Your task to perform on an android device: Turn off the flashlight Image 0: 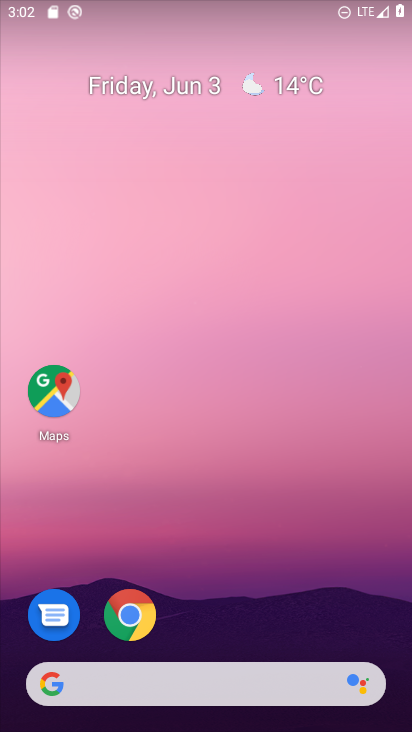
Step 0: drag from (97, 591) to (160, 194)
Your task to perform on an android device: Turn off the flashlight Image 1: 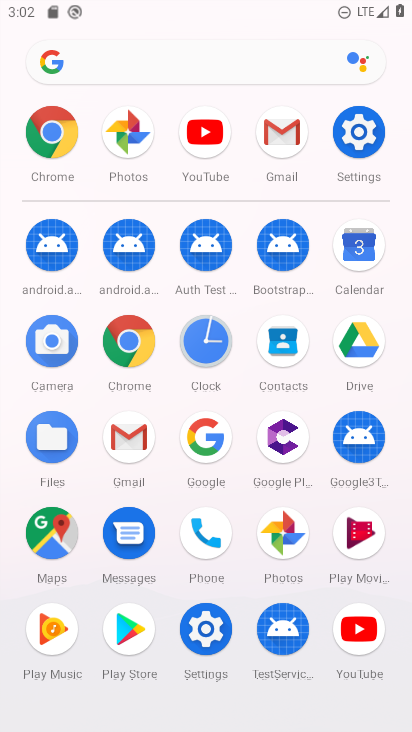
Step 1: click (361, 124)
Your task to perform on an android device: Turn off the flashlight Image 2: 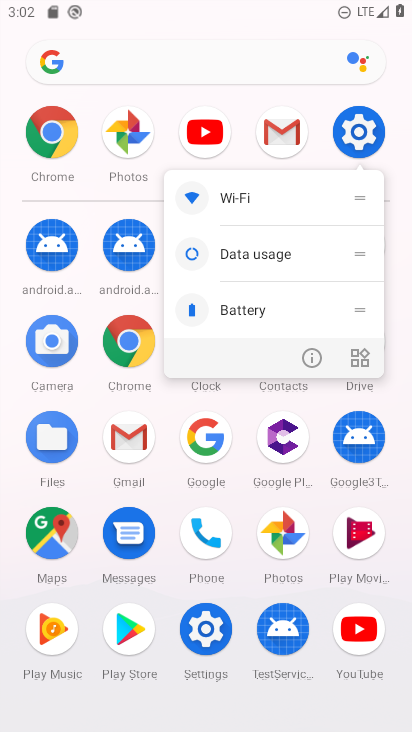
Step 2: click (307, 353)
Your task to perform on an android device: Turn off the flashlight Image 3: 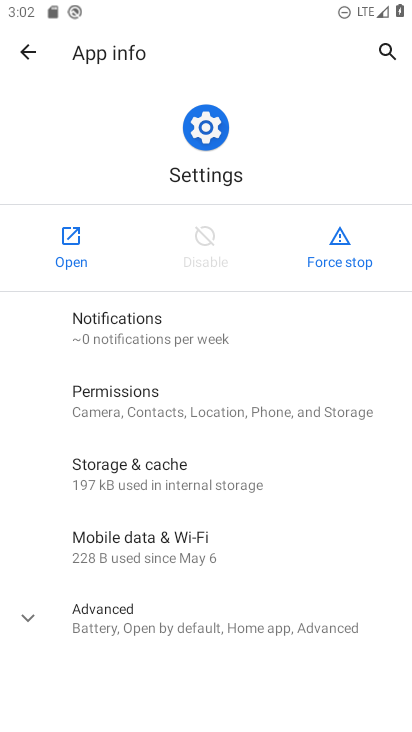
Step 3: click (56, 245)
Your task to perform on an android device: Turn off the flashlight Image 4: 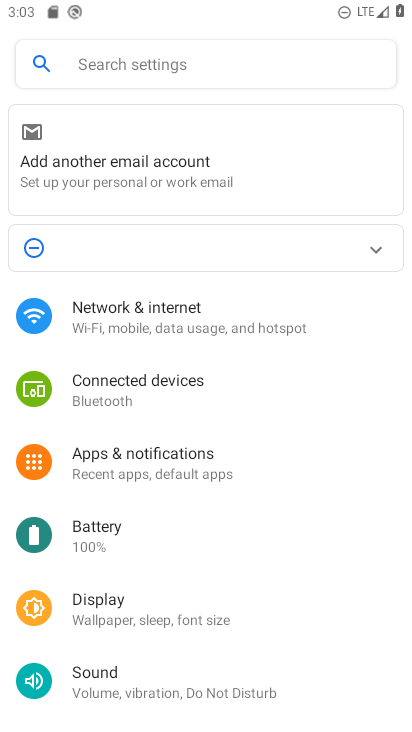
Step 4: click (222, 56)
Your task to perform on an android device: Turn off the flashlight Image 5: 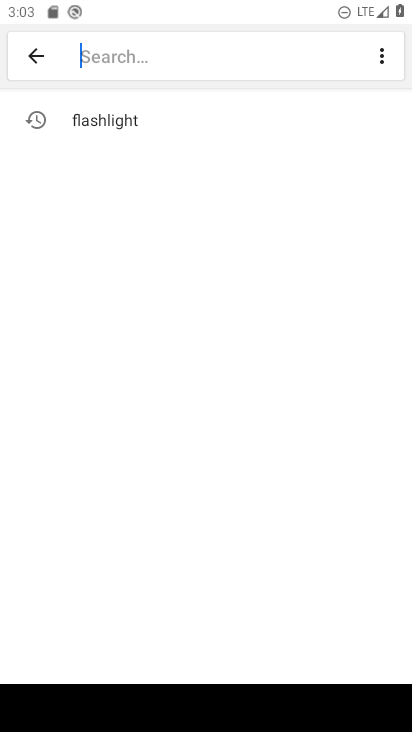
Step 5: click (98, 122)
Your task to perform on an android device: Turn off the flashlight Image 6: 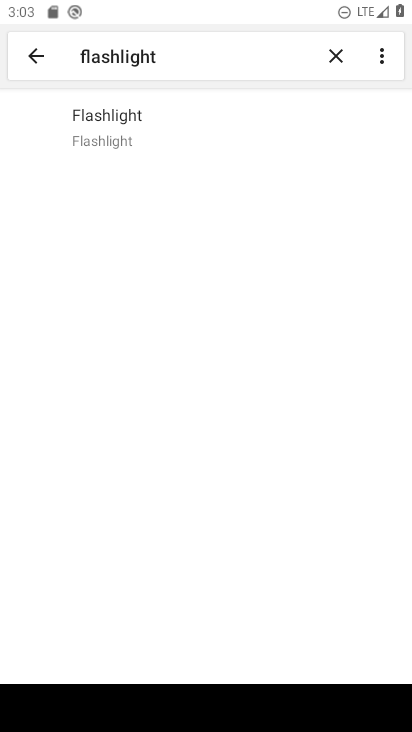
Step 6: drag from (229, 479) to (291, 95)
Your task to perform on an android device: Turn off the flashlight Image 7: 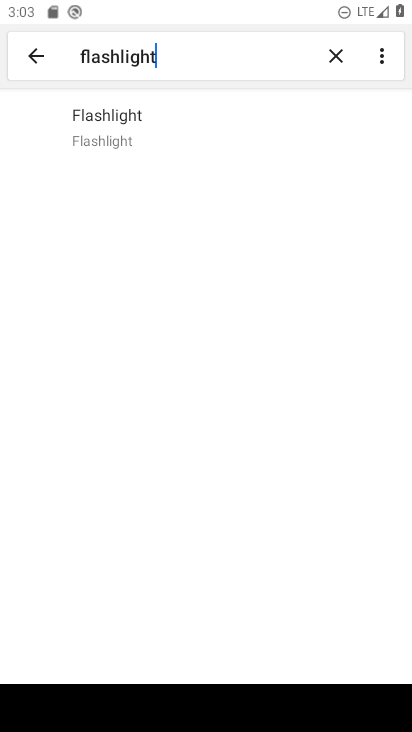
Step 7: drag from (202, 459) to (207, 256)
Your task to perform on an android device: Turn off the flashlight Image 8: 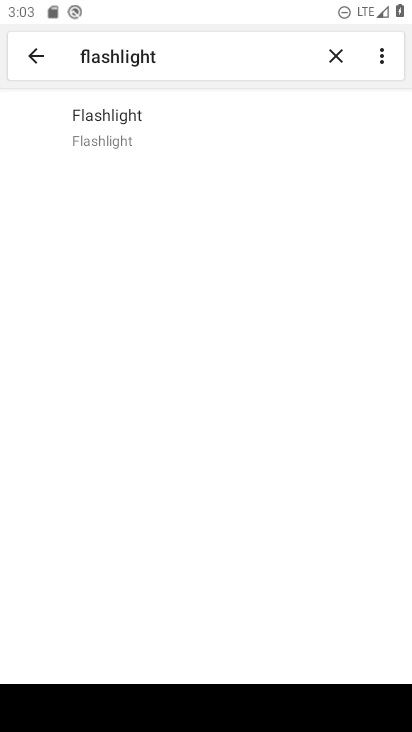
Step 8: click (175, 129)
Your task to perform on an android device: Turn off the flashlight Image 9: 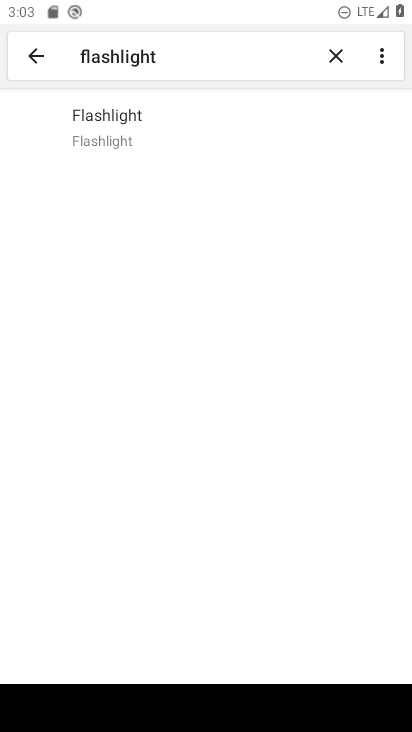
Step 9: click (211, 111)
Your task to perform on an android device: Turn off the flashlight Image 10: 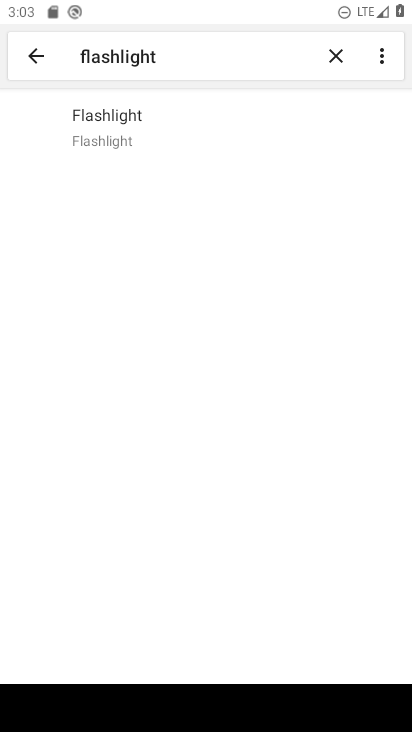
Step 10: click (147, 112)
Your task to perform on an android device: Turn off the flashlight Image 11: 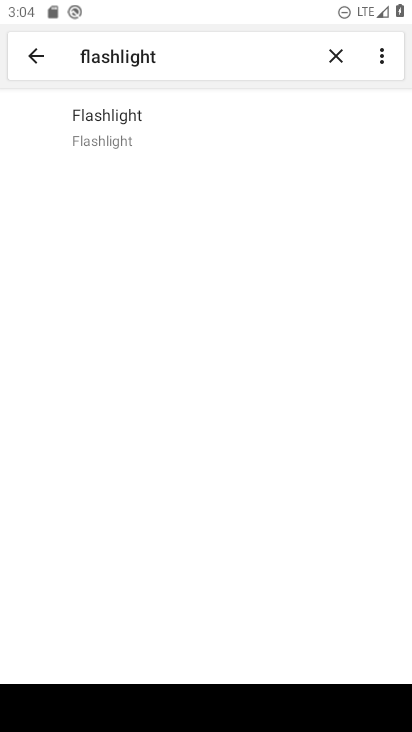
Step 11: task complete